Your task to perform on an android device: Play the last video I watched on Youtube Image 0: 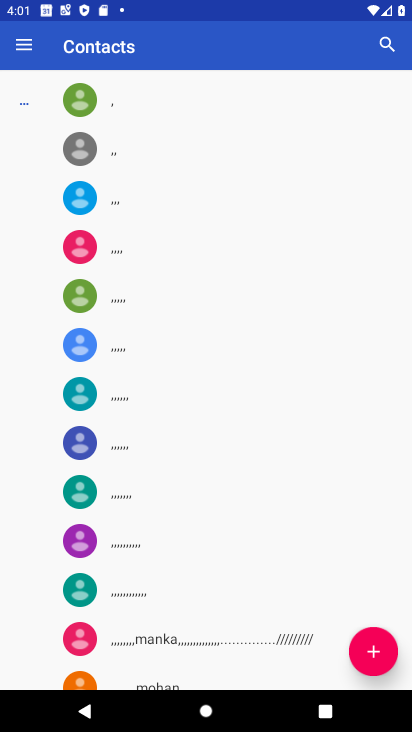
Step 0: press home button
Your task to perform on an android device: Play the last video I watched on Youtube Image 1: 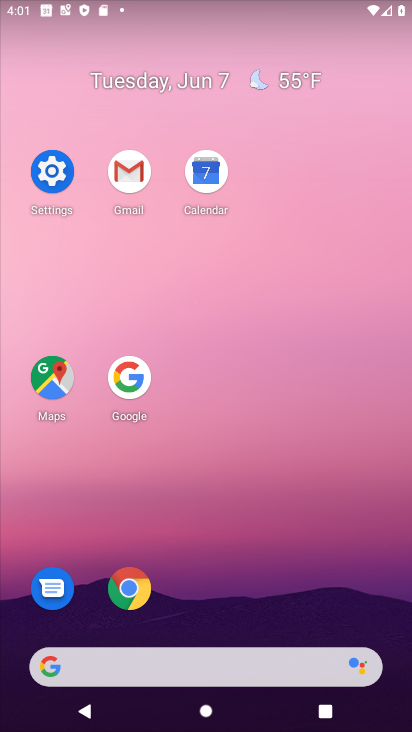
Step 1: drag from (224, 575) to (281, 93)
Your task to perform on an android device: Play the last video I watched on Youtube Image 2: 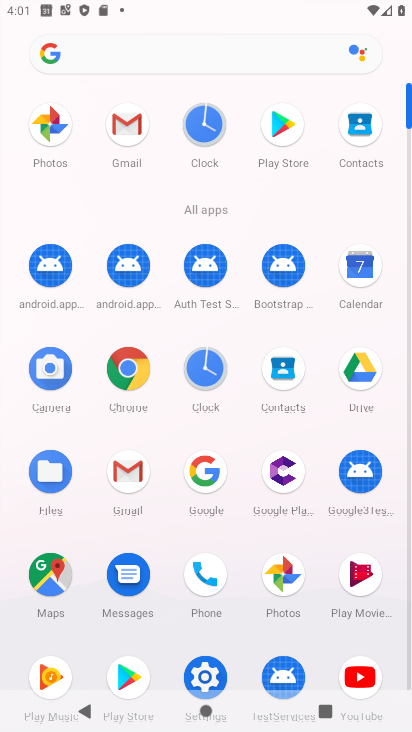
Step 2: click (369, 668)
Your task to perform on an android device: Play the last video I watched on Youtube Image 3: 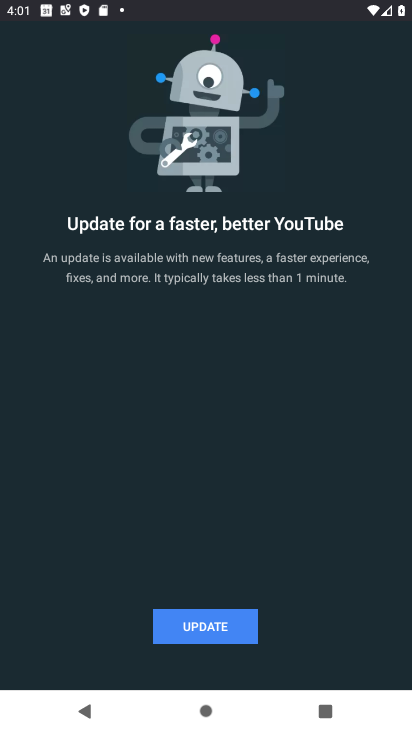
Step 3: click (164, 633)
Your task to perform on an android device: Play the last video I watched on Youtube Image 4: 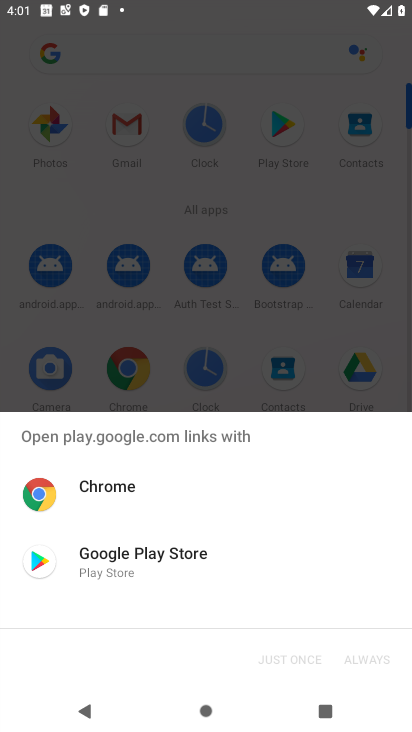
Step 4: click (188, 533)
Your task to perform on an android device: Play the last video I watched on Youtube Image 5: 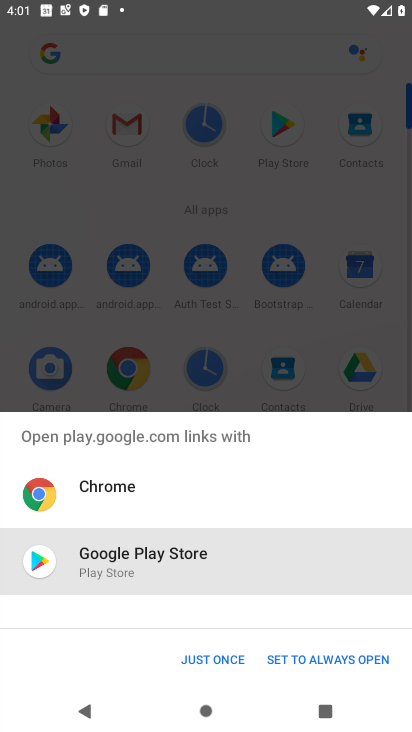
Step 5: click (188, 533)
Your task to perform on an android device: Play the last video I watched on Youtube Image 6: 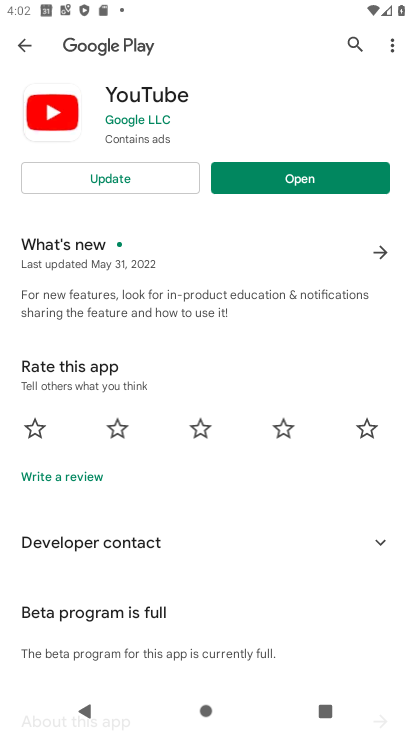
Step 6: click (174, 177)
Your task to perform on an android device: Play the last video I watched on Youtube Image 7: 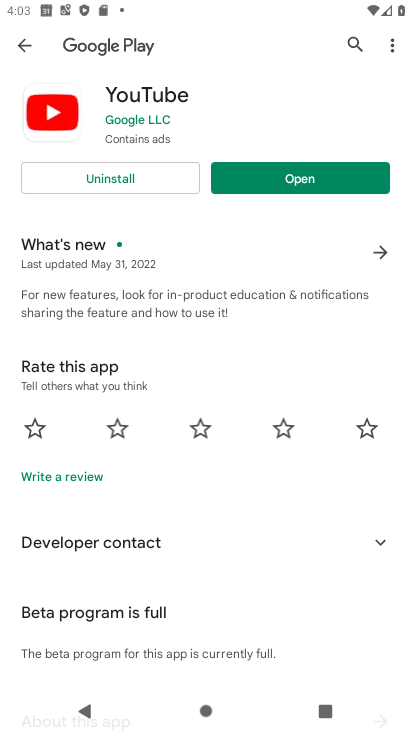
Step 7: click (346, 188)
Your task to perform on an android device: Play the last video I watched on Youtube Image 8: 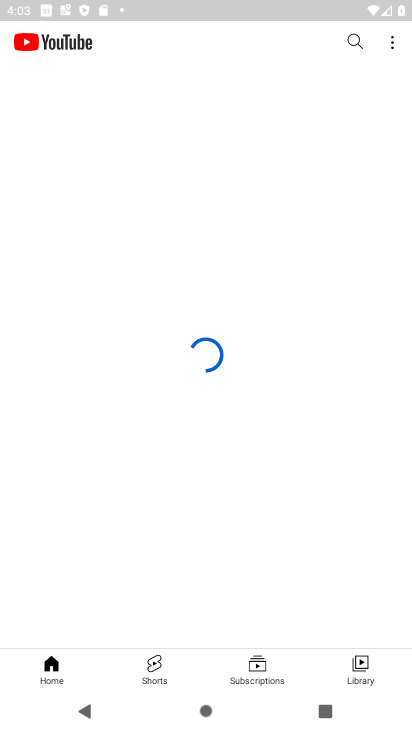
Step 8: click (369, 673)
Your task to perform on an android device: Play the last video I watched on Youtube Image 9: 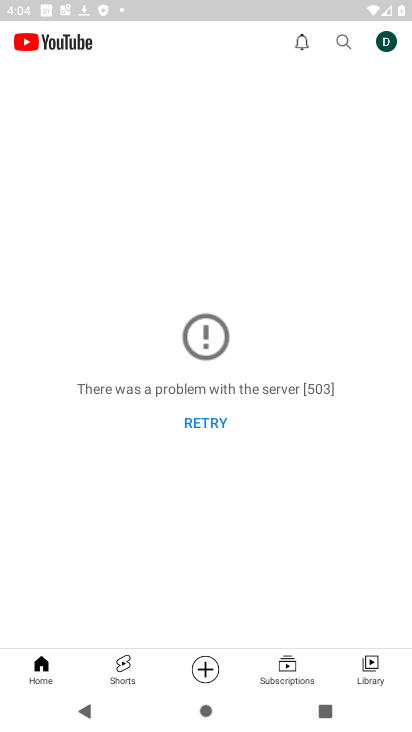
Step 9: click (373, 655)
Your task to perform on an android device: Play the last video I watched on Youtube Image 10: 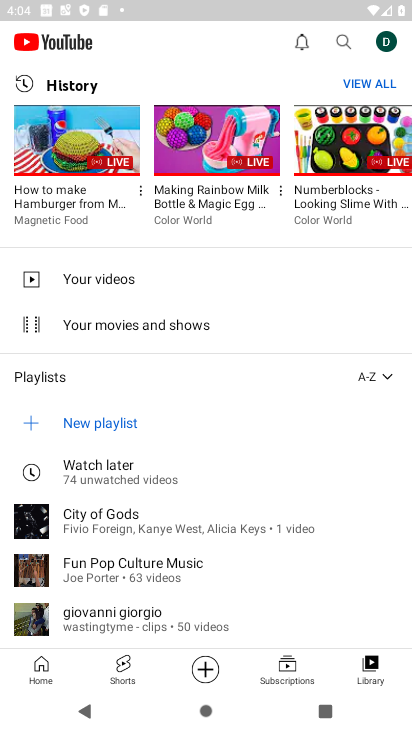
Step 10: task complete